Your task to perform on an android device: turn on location history Image 0: 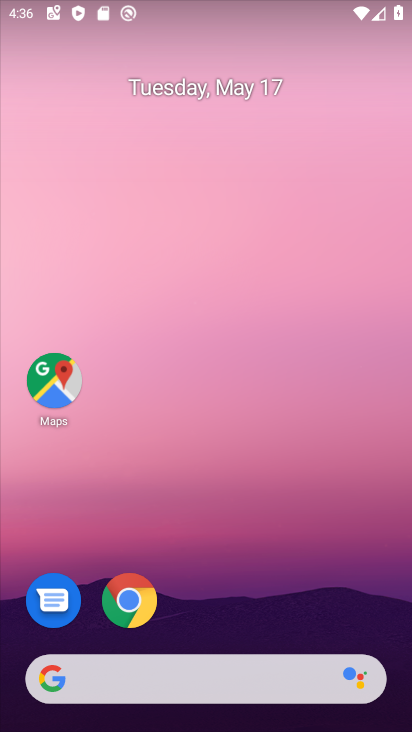
Step 0: drag from (210, 620) to (271, 2)
Your task to perform on an android device: turn on location history Image 1: 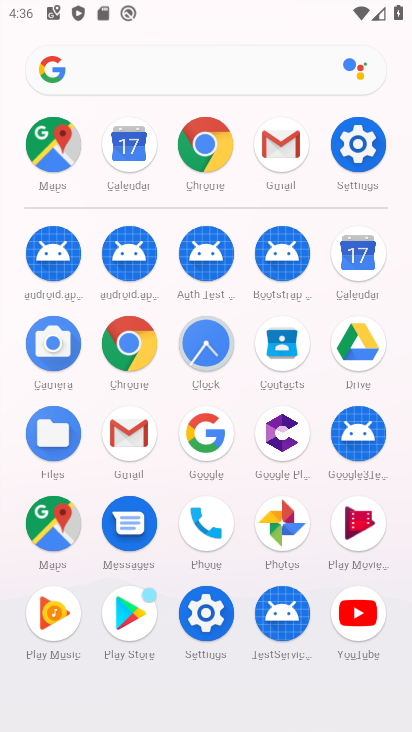
Step 1: click (355, 145)
Your task to perform on an android device: turn on location history Image 2: 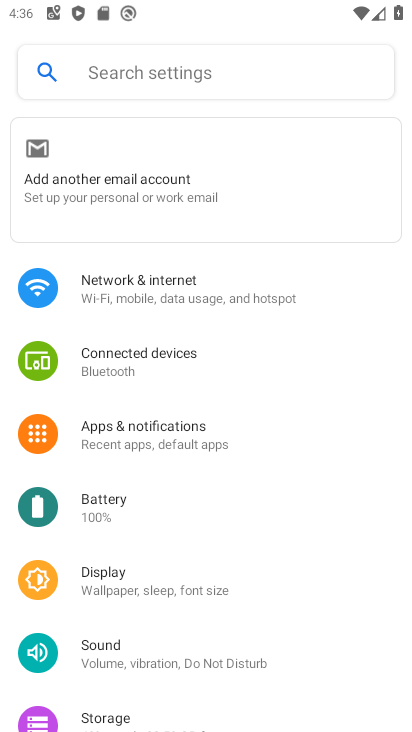
Step 2: drag from (140, 554) to (185, 353)
Your task to perform on an android device: turn on location history Image 3: 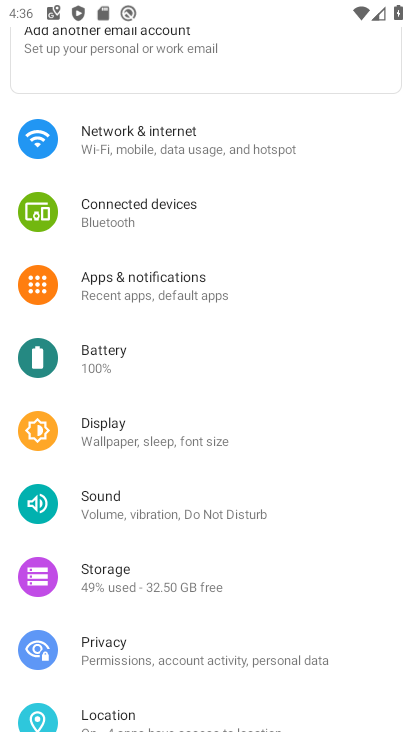
Step 3: drag from (118, 663) to (177, 429)
Your task to perform on an android device: turn on location history Image 4: 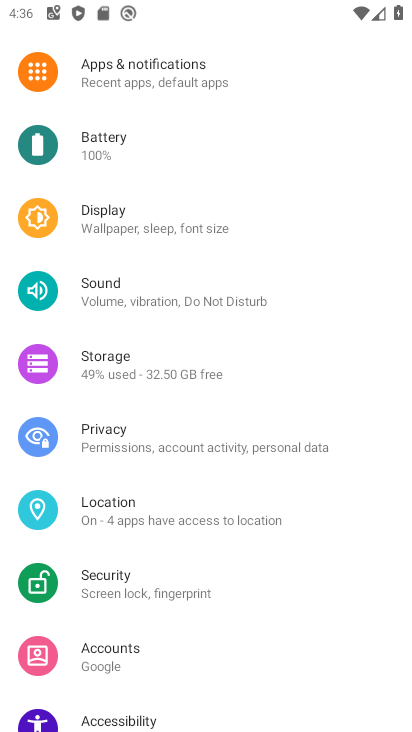
Step 4: click (156, 516)
Your task to perform on an android device: turn on location history Image 5: 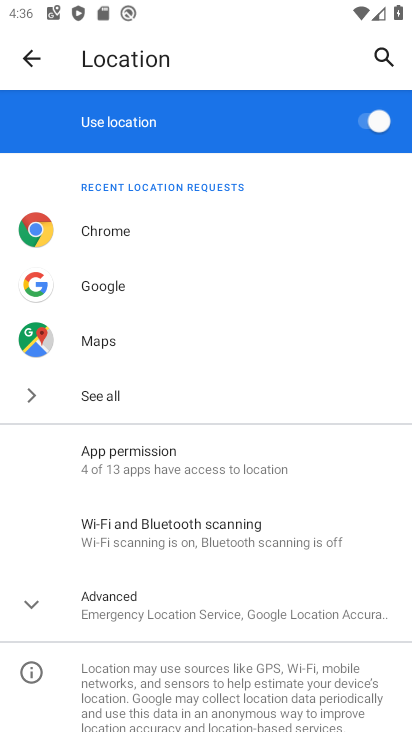
Step 5: click (121, 604)
Your task to perform on an android device: turn on location history Image 6: 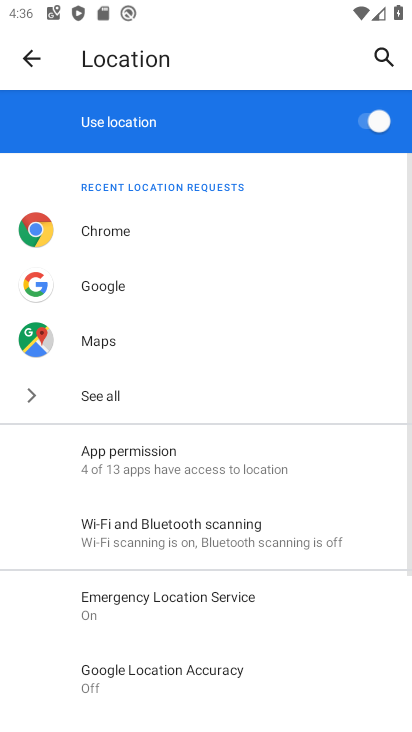
Step 6: drag from (176, 642) to (218, 479)
Your task to perform on an android device: turn on location history Image 7: 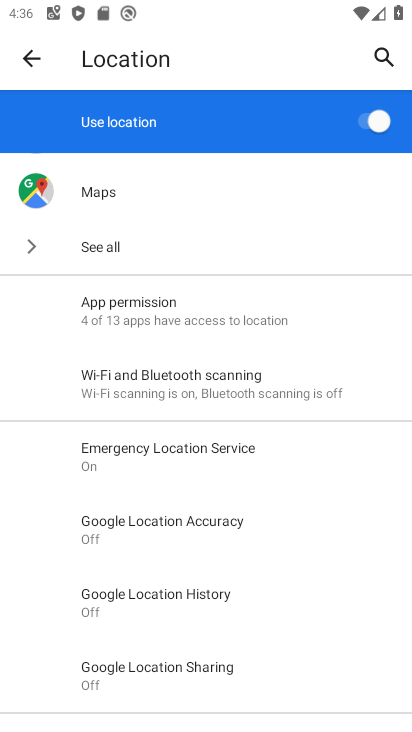
Step 7: click (191, 603)
Your task to perform on an android device: turn on location history Image 8: 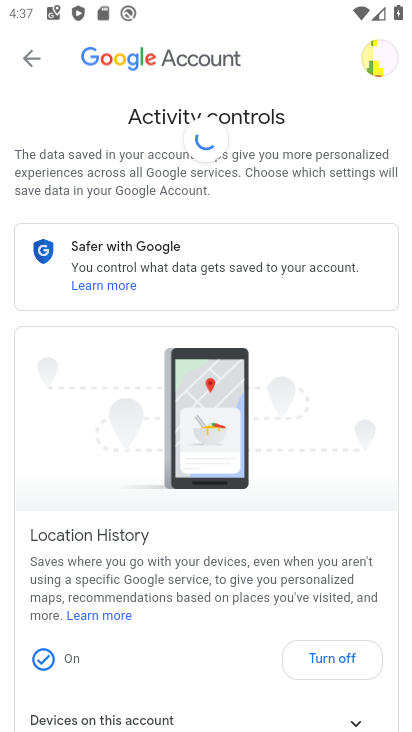
Step 8: task complete